Your task to perform on an android device: Search for a 100 ft extension cord Image 0: 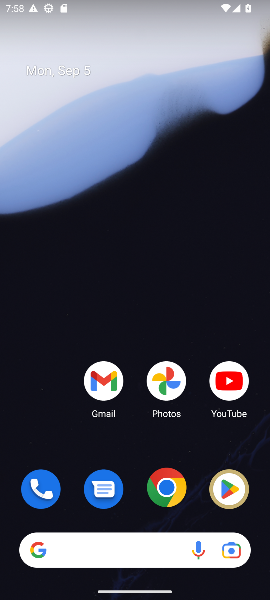
Step 0: click (74, 71)
Your task to perform on an android device: Search for a 100 ft extension cord Image 1: 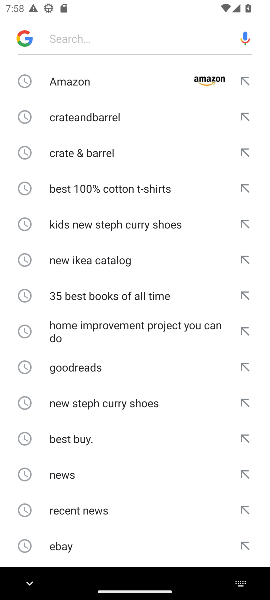
Step 1: type "100ft extension cord"
Your task to perform on an android device: Search for a 100 ft extension cord Image 2: 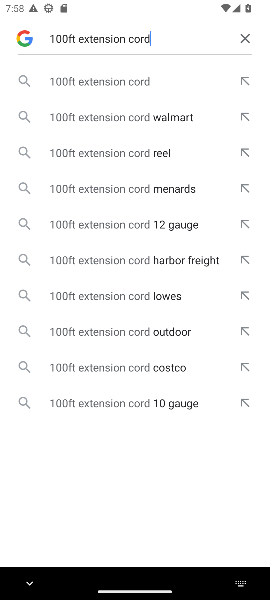
Step 2: press enter
Your task to perform on an android device: Search for a 100 ft extension cord Image 3: 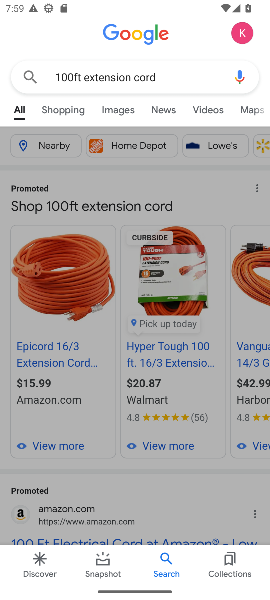
Step 3: task complete